Your task to perform on an android device: Open notification settings Image 0: 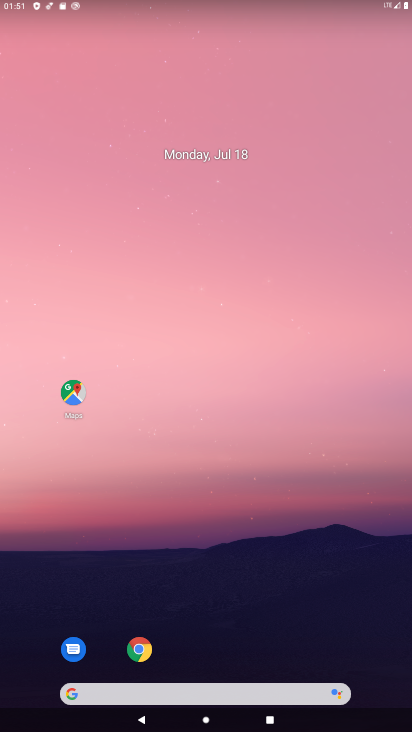
Step 0: drag from (167, 719) to (143, 24)
Your task to perform on an android device: Open notification settings Image 1: 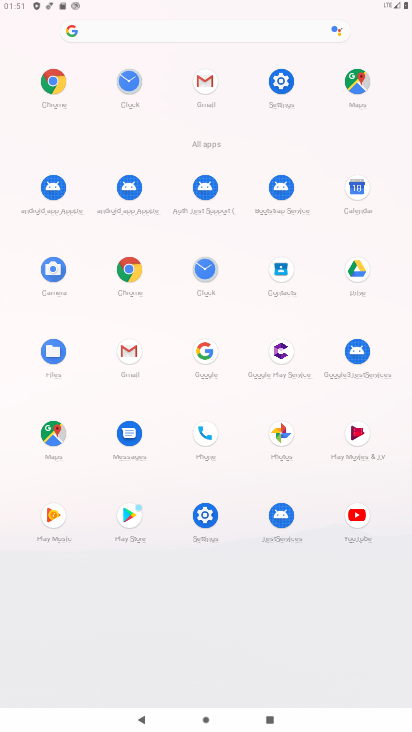
Step 1: click (286, 92)
Your task to perform on an android device: Open notification settings Image 2: 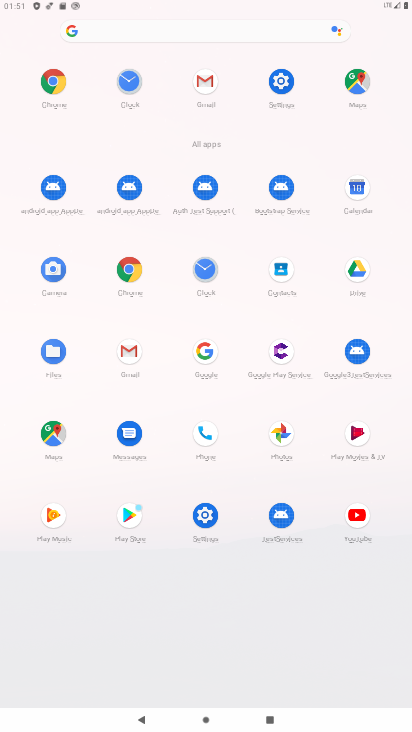
Step 2: click (286, 92)
Your task to perform on an android device: Open notification settings Image 3: 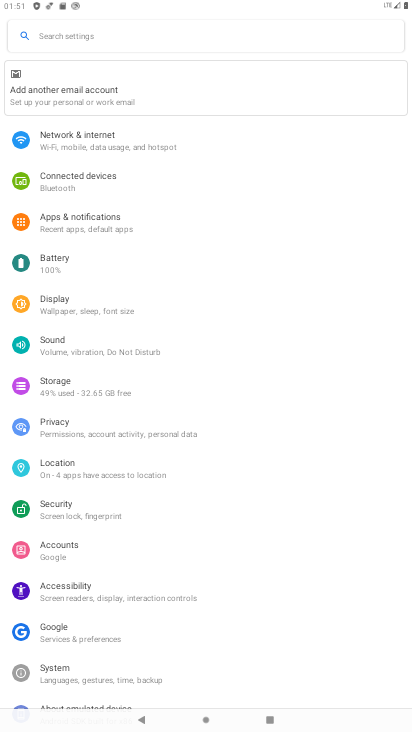
Step 3: click (141, 217)
Your task to perform on an android device: Open notification settings Image 4: 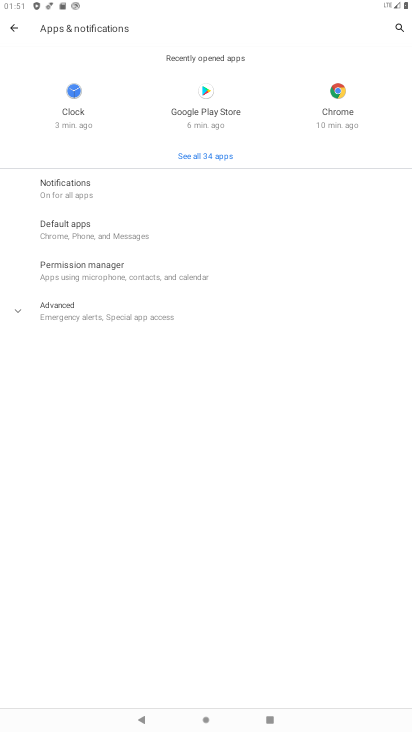
Step 4: click (73, 190)
Your task to perform on an android device: Open notification settings Image 5: 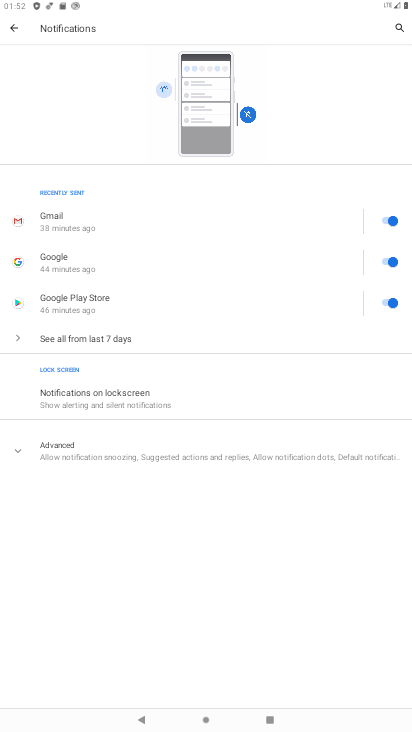
Step 5: task complete